Your task to perform on an android device: all mails in gmail Image 0: 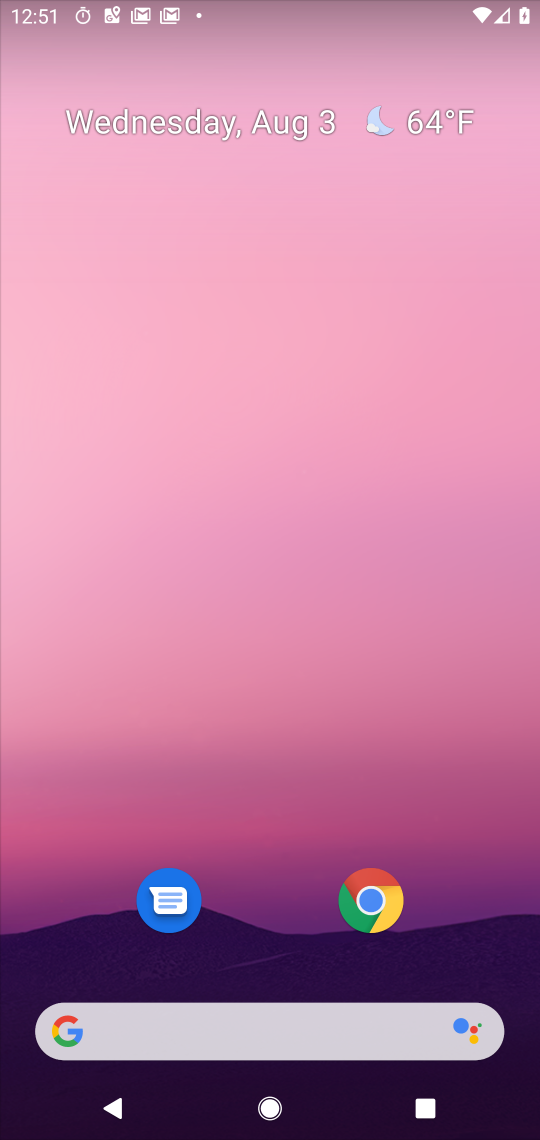
Step 0: drag from (288, 841) to (369, 84)
Your task to perform on an android device: all mails in gmail Image 1: 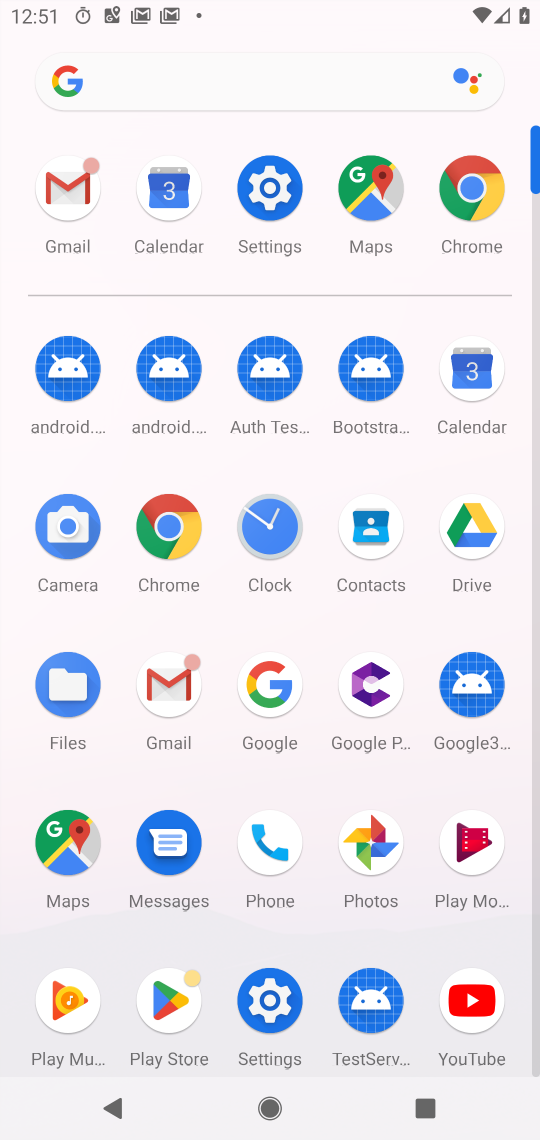
Step 1: click (167, 681)
Your task to perform on an android device: all mails in gmail Image 2: 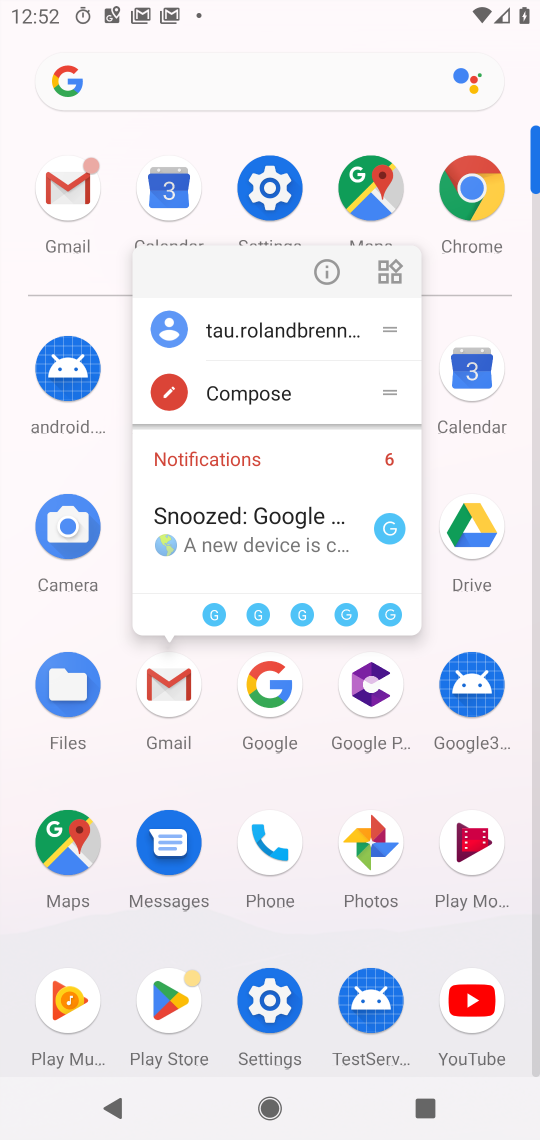
Step 2: click (169, 691)
Your task to perform on an android device: all mails in gmail Image 3: 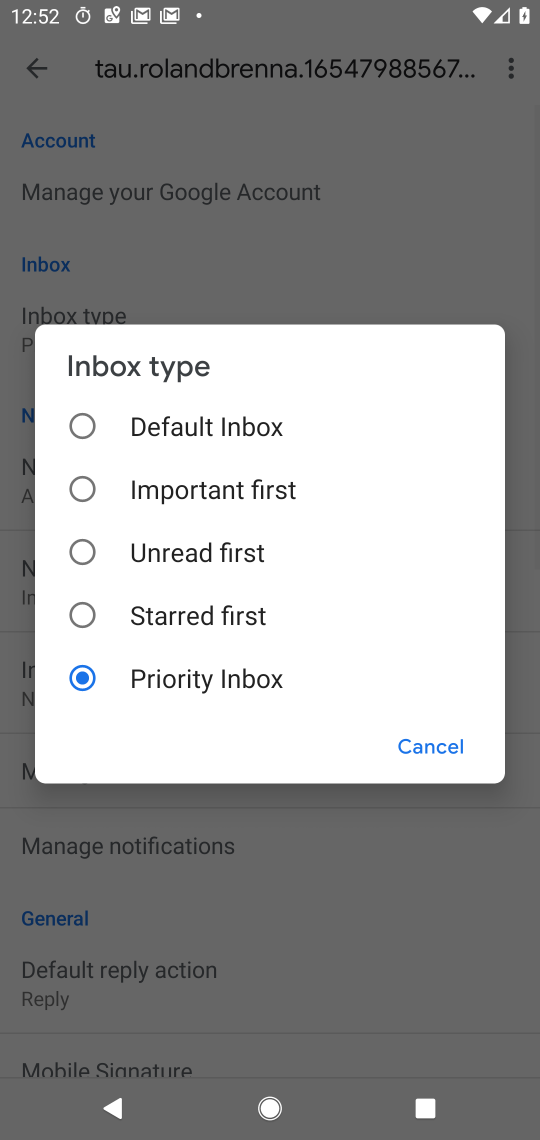
Step 3: click (437, 742)
Your task to perform on an android device: all mails in gmail Image 4: 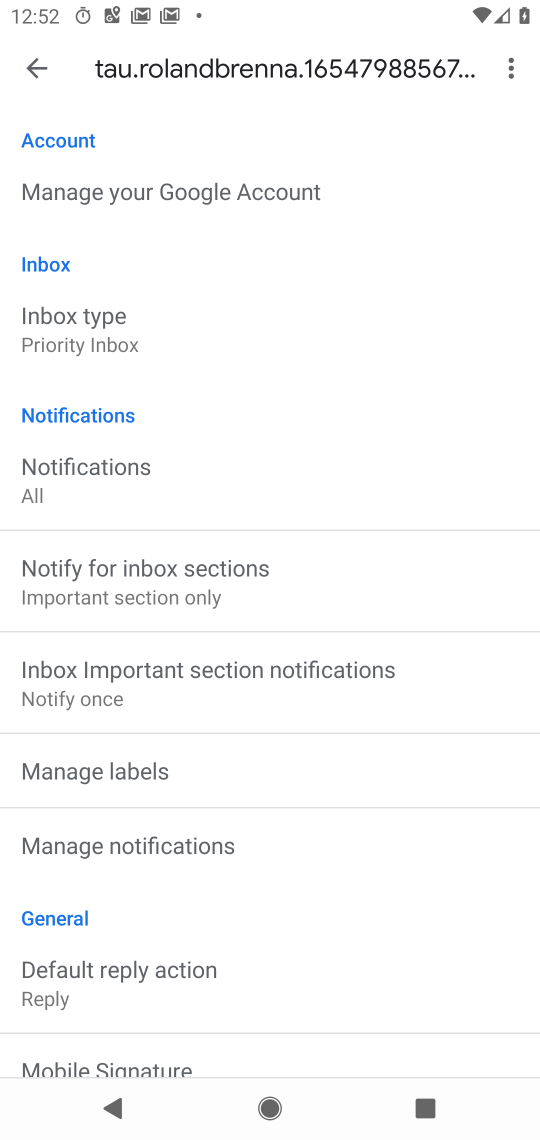
Step 4: click (34, 67)
Your task to perform on an android device: all mails in gmail Image 5: 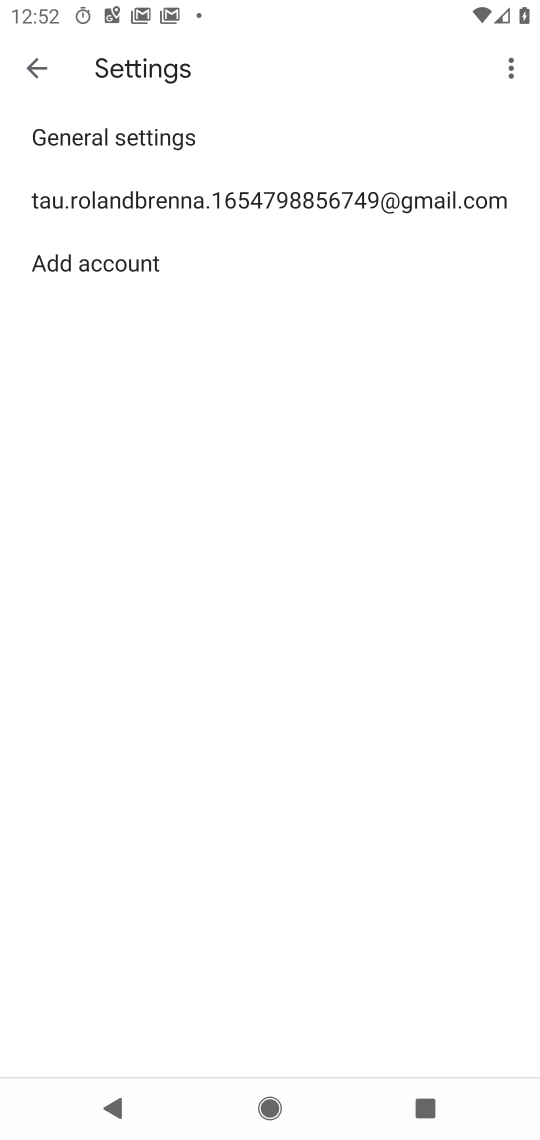
Step 5: click (34, 67)
Your task to perform on an android device: all mails in gmail Image 6: 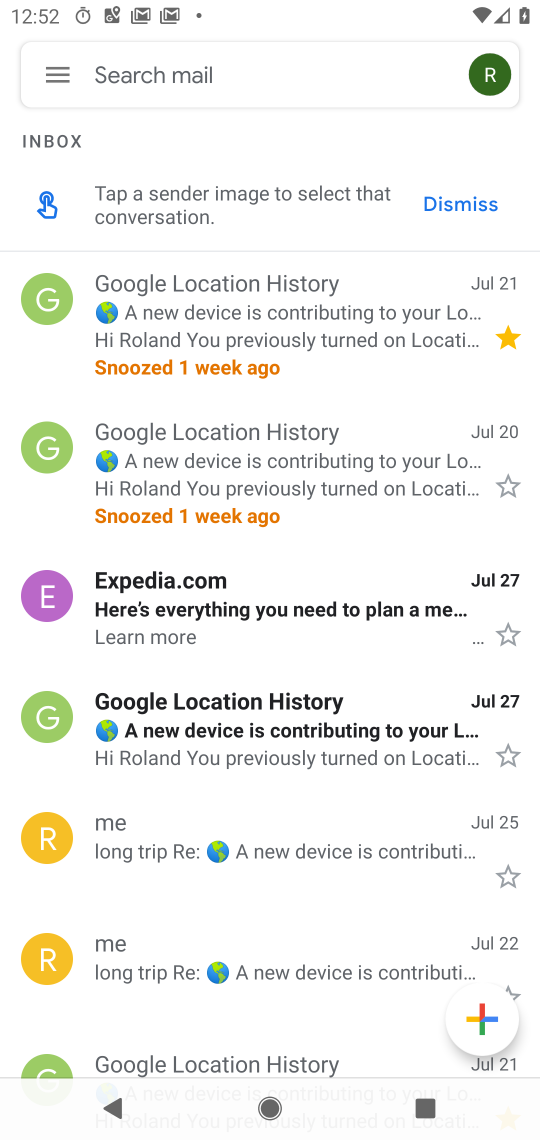
Step 6: click (47, 67)
Your task to perform on an android device: all mails in gmail Image 7: 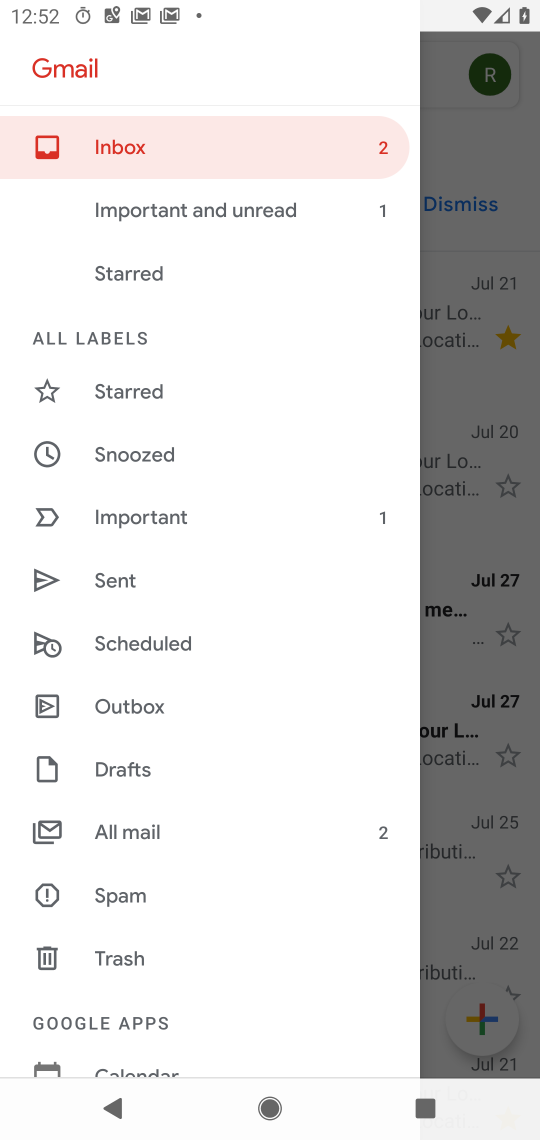
Step 7: click (135, 830)
Your task to perform on an android device: all mails in gmail Image 8: 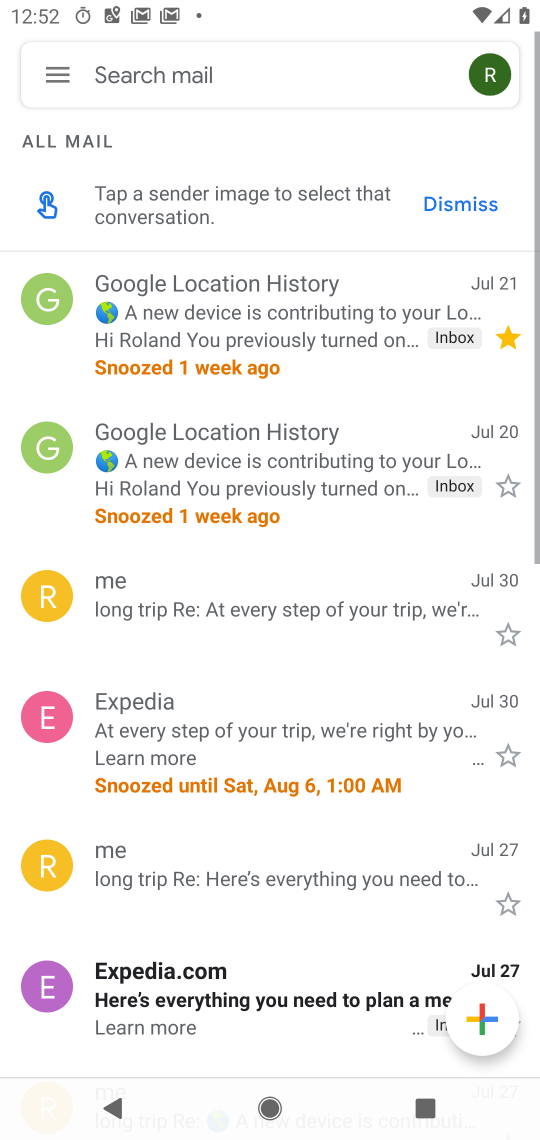
Step 8: task complete